Your task to perform on an android device: turn off smart reply in the gmail app Image 0: 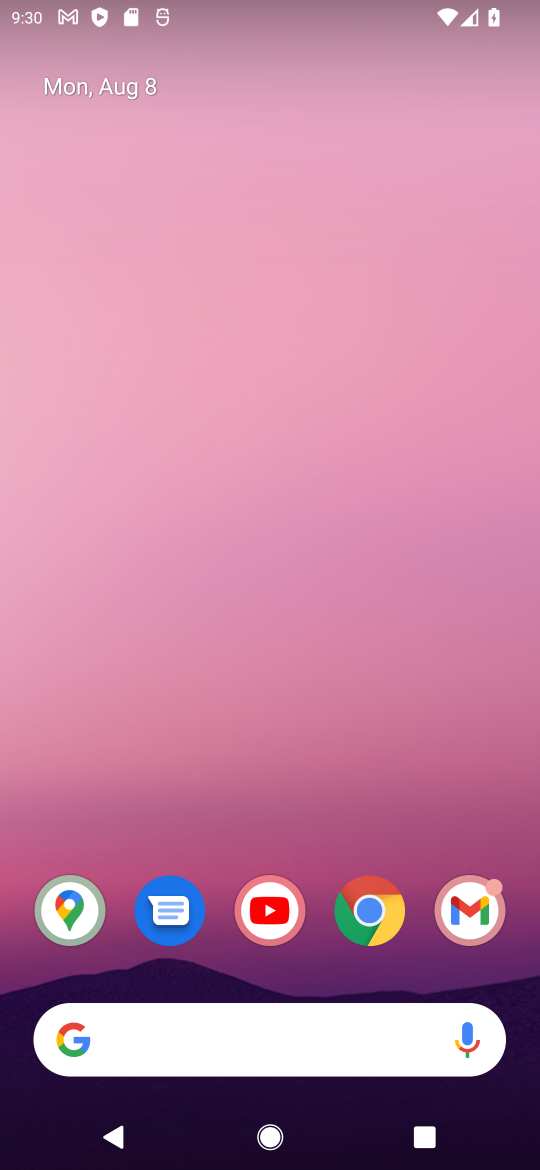
Step 0: press home button
Your task to perform on an android device: turn off smart reply in the gmail app Image 1: 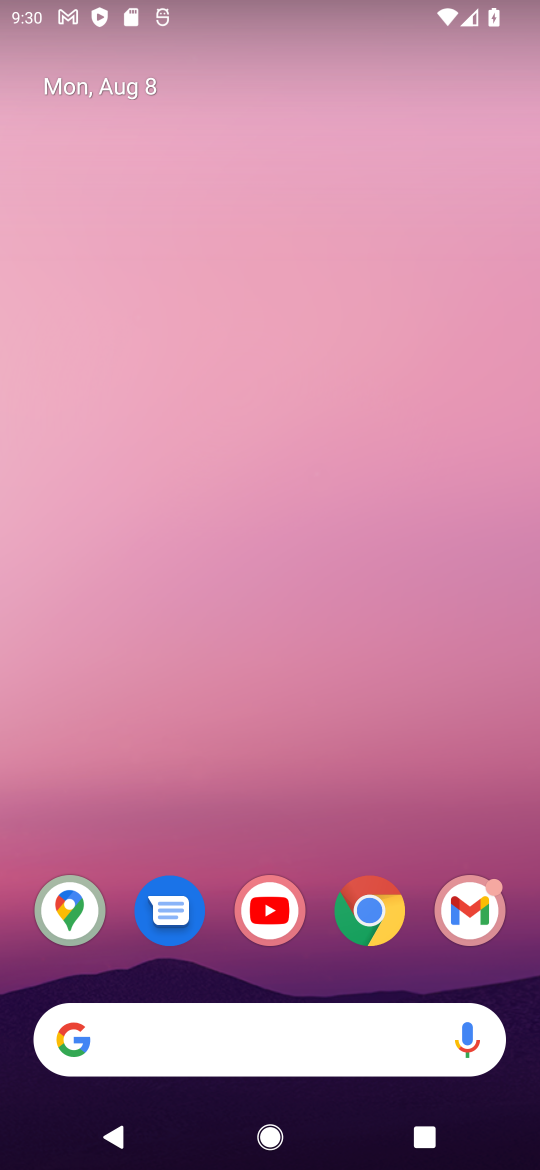
Step 1: drag from (323, 866) to (160, 254)
Your task to perform on an android device: turn off smart reply in the gmail app Image 2: 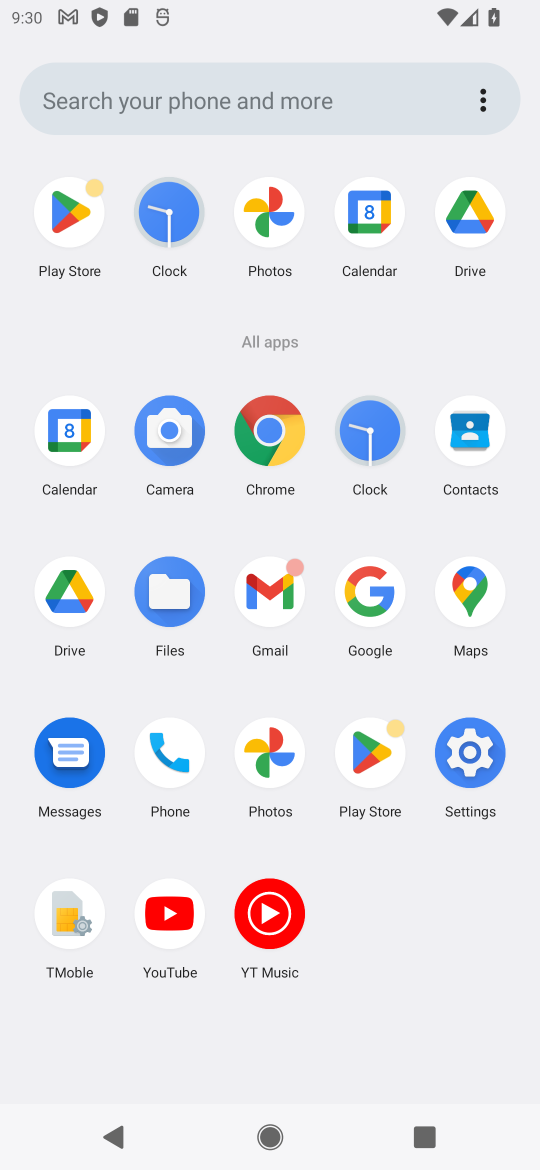
Step 2: click (270, 595)
Your task to perform on an android device: turn off smart reply in the gmail app Image 3: 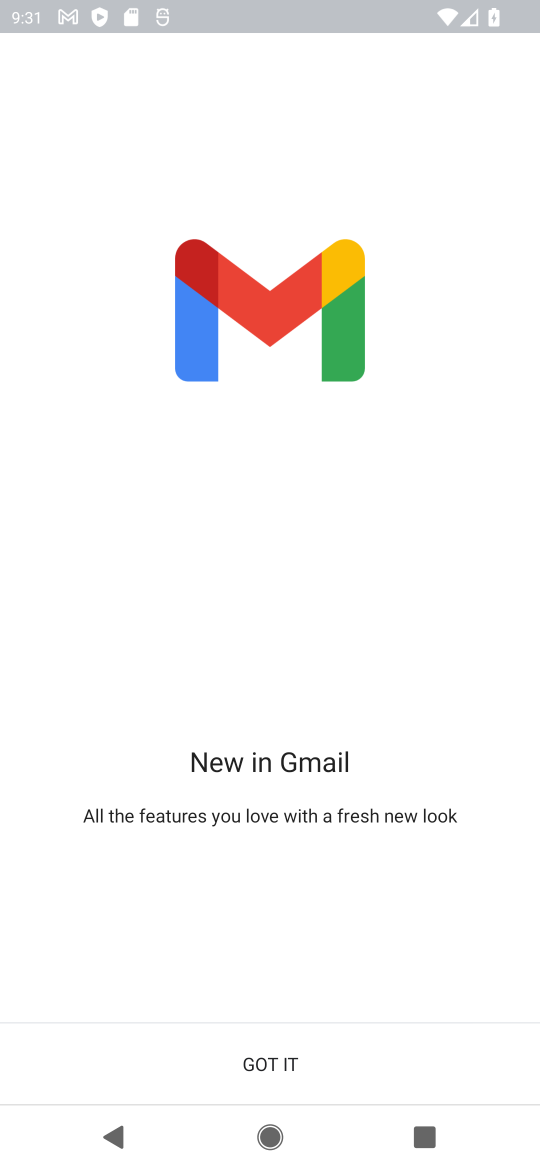
Step 3: click (316, 1076)
Your task to perform on an android device: turn off smart reply in the gmail app Image 4: 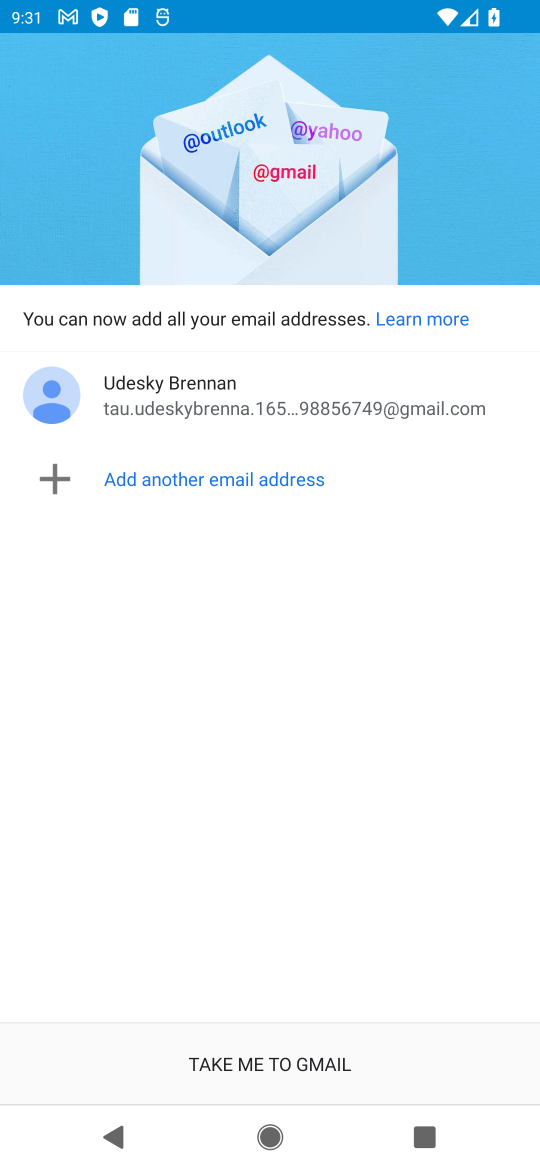
Step 4: click (305, 1057)
Your task to perform on an android device: turn off smart reply in the gmail app Image 5: 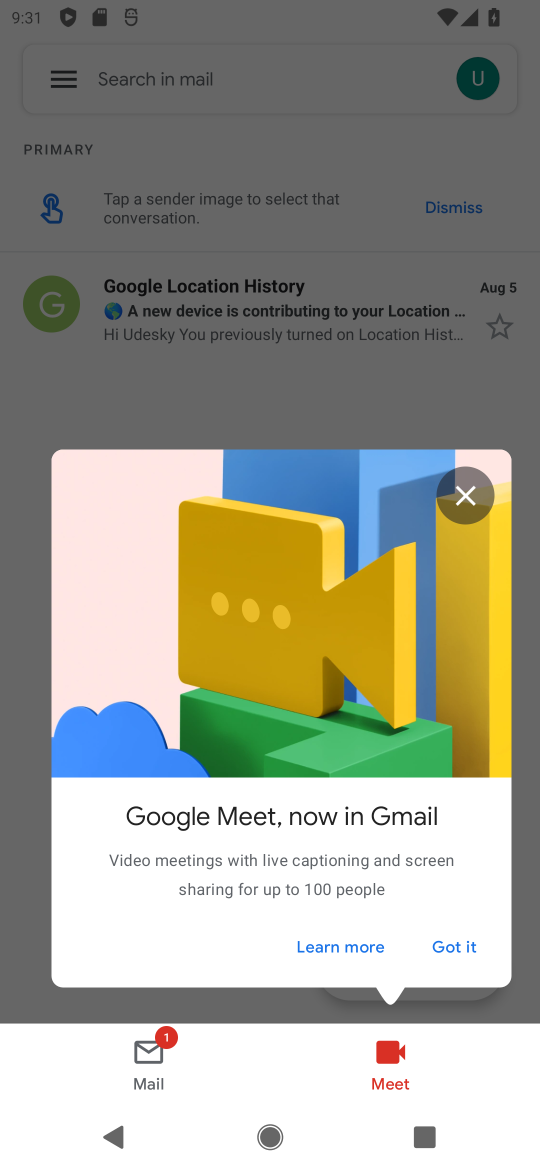
Step 5: click (228, 173)
Your task to perform on an android device: turn off smart reply in the gmail app Image 6: 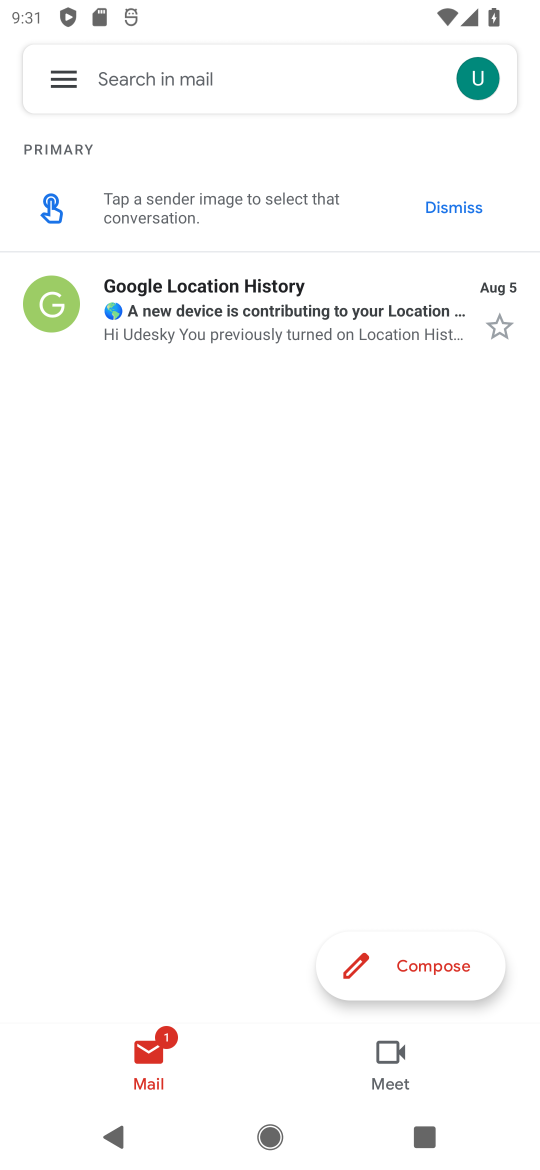
Step 6: click (66, 87)
Your task to perform on an android device: turn off smart reply in the gmail app Image 7: 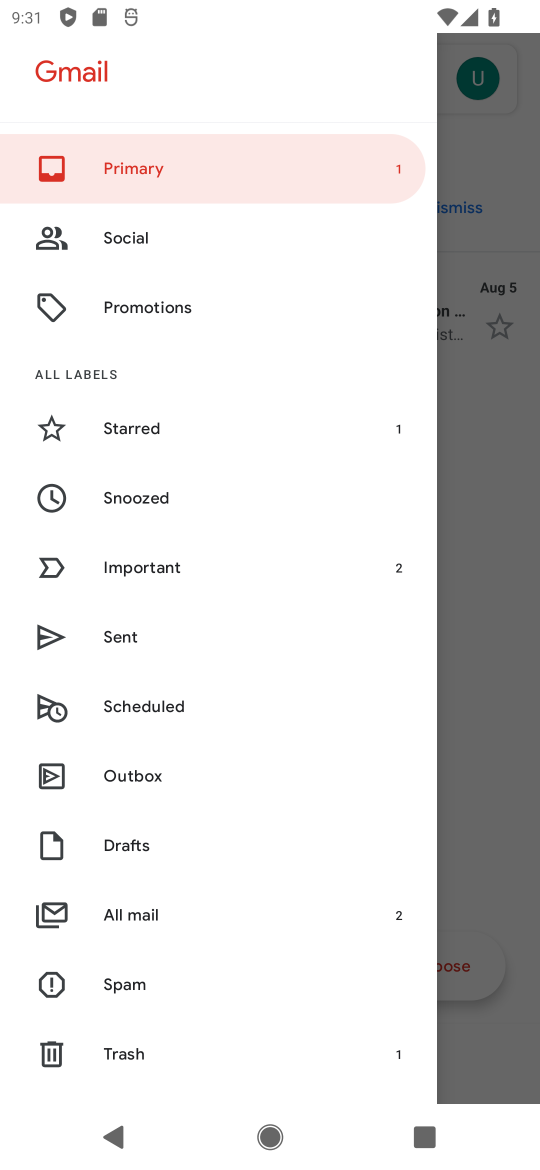
Step 7: drag from (338, 927) to (233, 403)
Your task to perform on an android device: turn off smart reply in the gmail app Image 8: 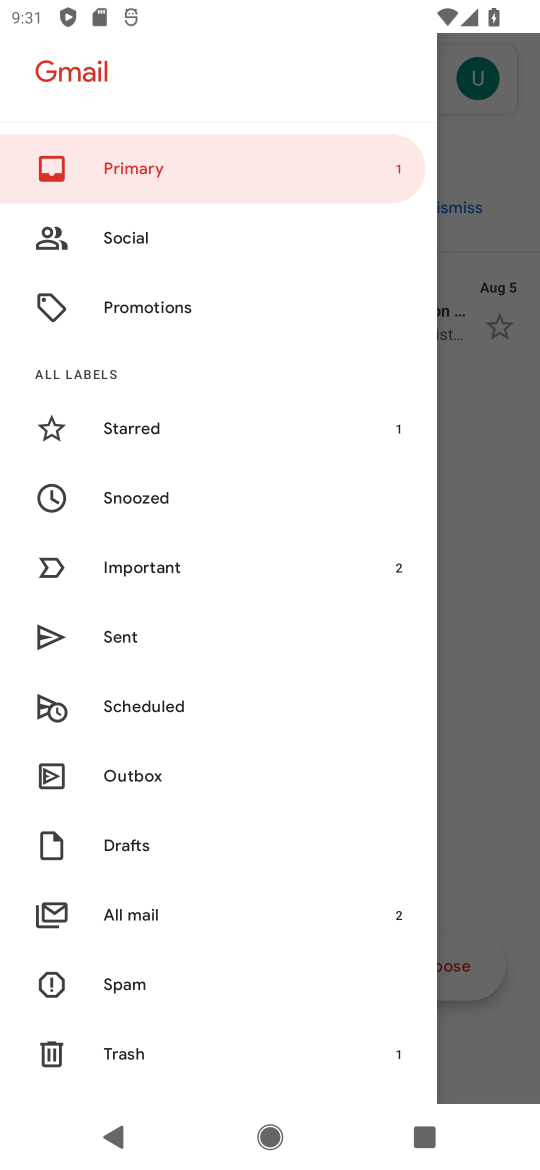
Step 8: drag from (293, 879) to (239, 457)
Your task to perform on an android device: turn off smart reply in the gmail app Image 9: 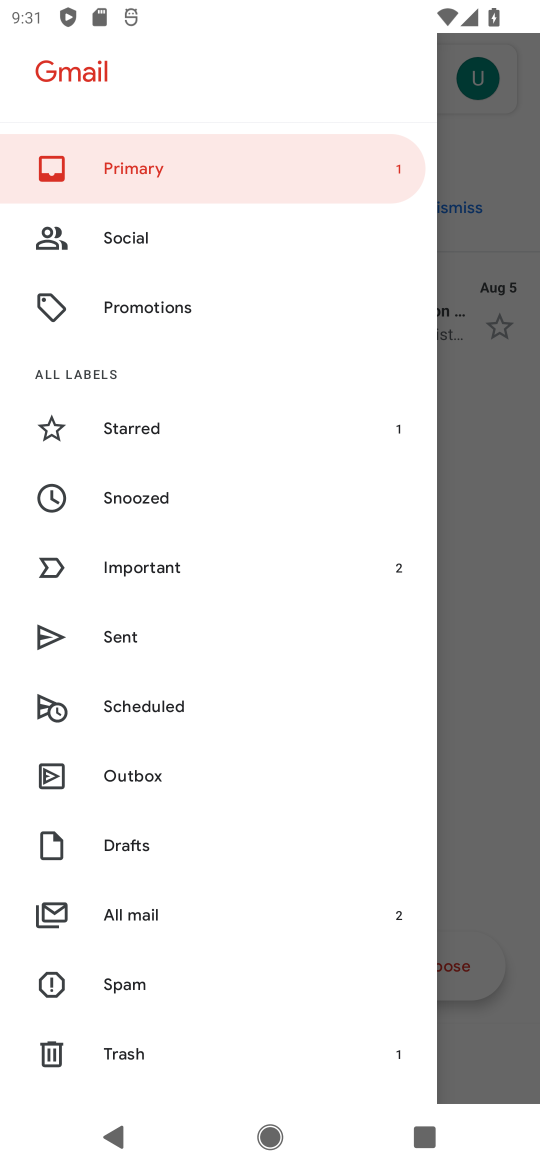
Step 9: drag from (293, 904) to (341, 423)
Your task to perform on an android device: turn off smart reply in the gmail app Image 10: 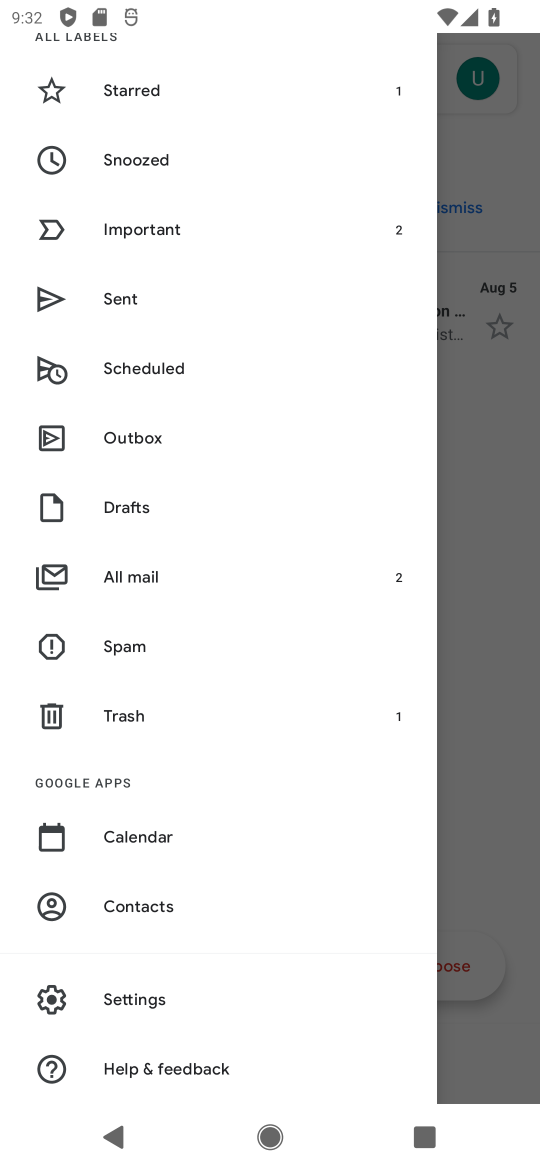
Step 10: click (208, 1009)
Your task to perform on an android device: turn off smart reply in the gmail app Image 11: 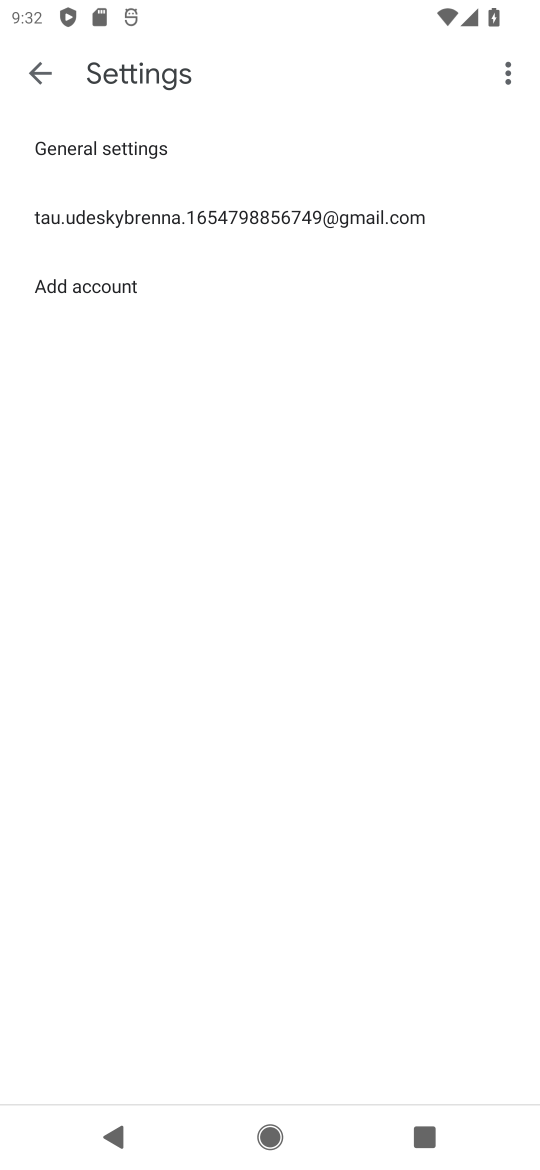
Step 11: click (128, 211)
Your task to perform on an android device: turn off smart reply in the gmail app Image 12: 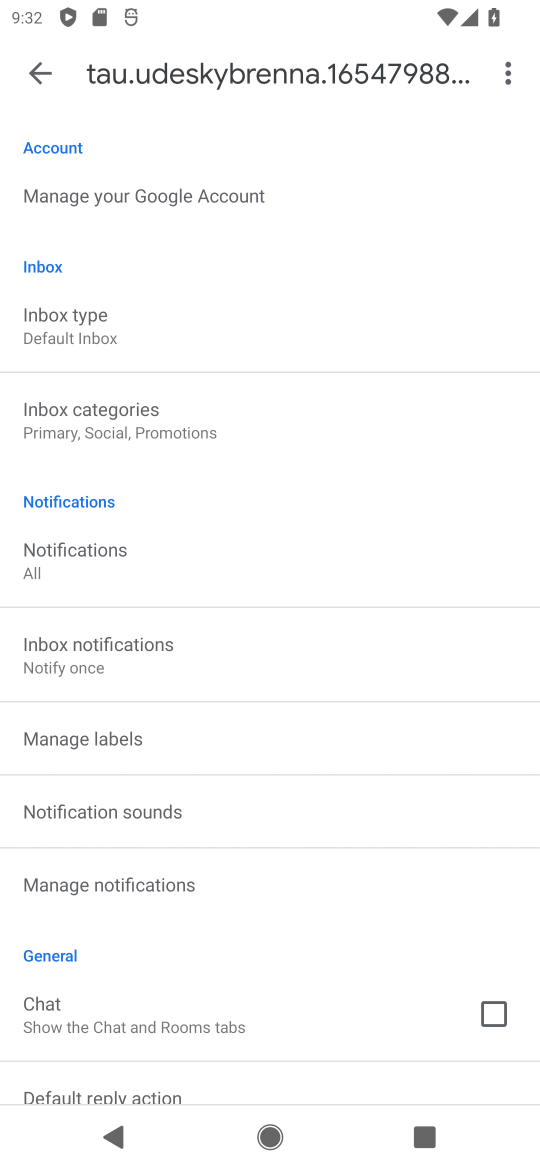
Step 12: drag from (394, 940) to (313, 371)
Your task to perform on an android device: turn off smart reply in the gmail app Image 13: 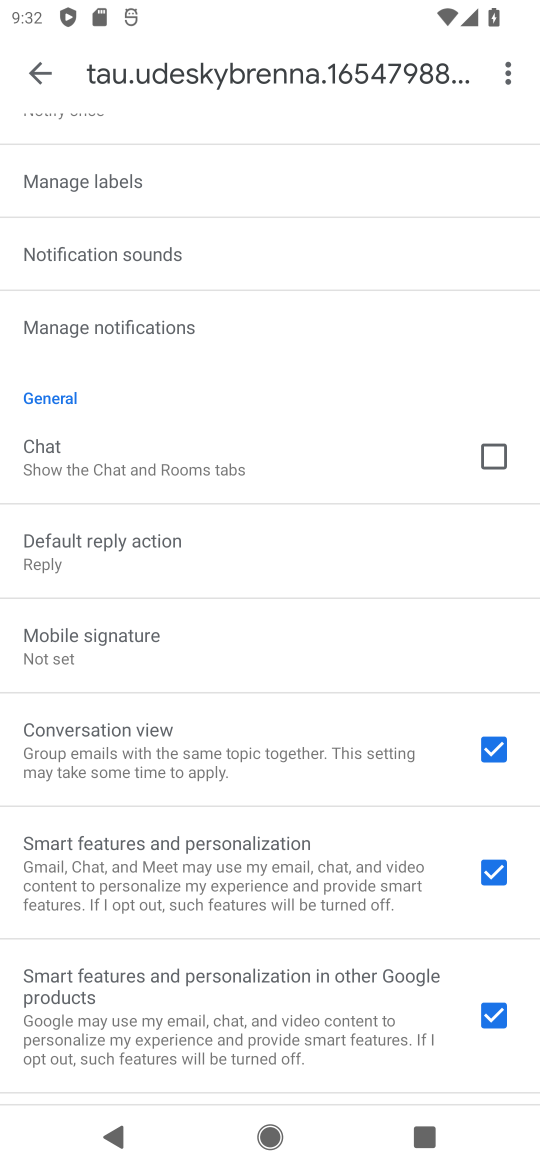
Step 13: drag from (281, 886) to (177, 264)
Your task to perform on an android device: turn off smart reply in the gmail app Image 14: 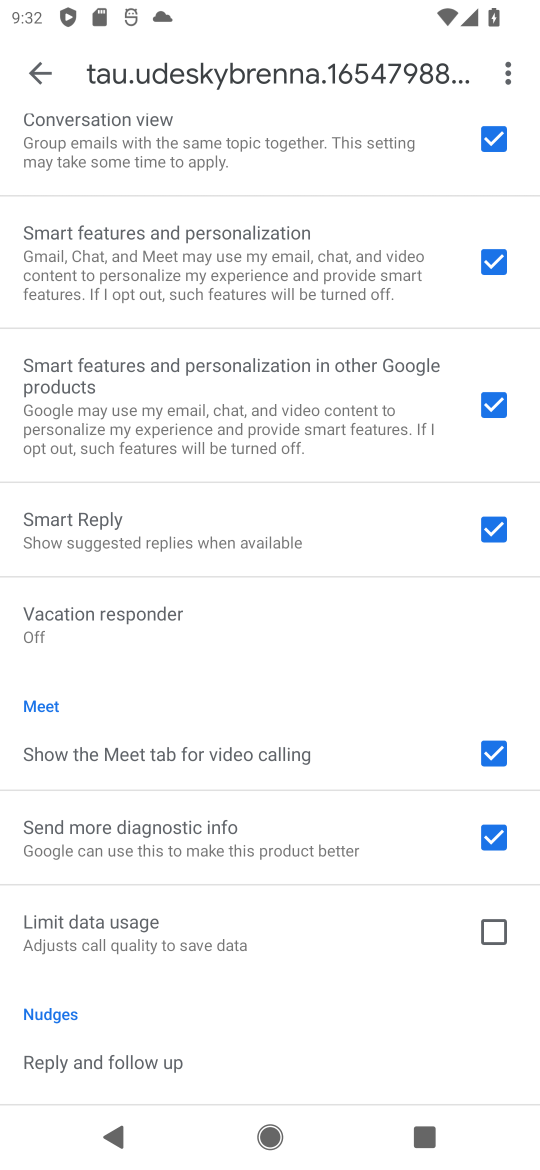
Step 14: click (498, 533)
Your task to perform on an android device: turn off smart reply in the gmail app Image 15: 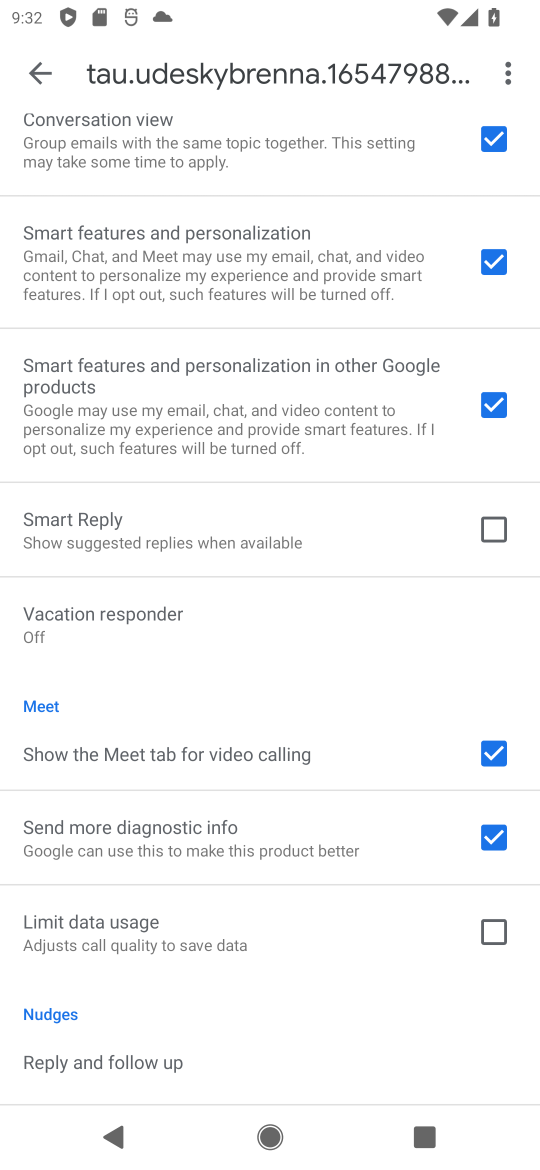
Step 15: task complete